Your task to perform on an android device: Is it going to rain tomorrow? Image 0: 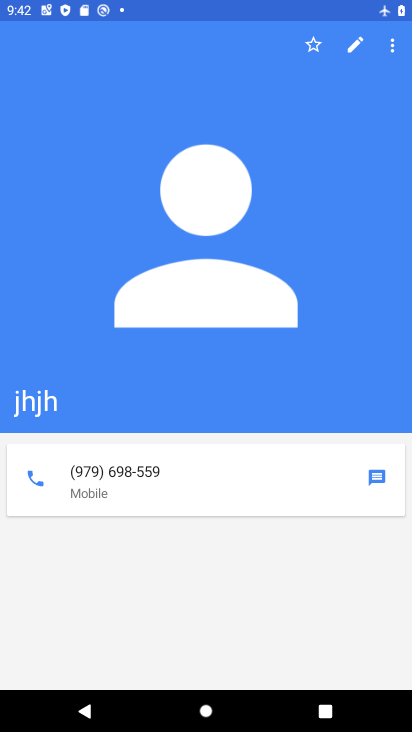
Step 0: press home button
Your task to perform on an android device: Is it going to rain tomorrow? Image 1: 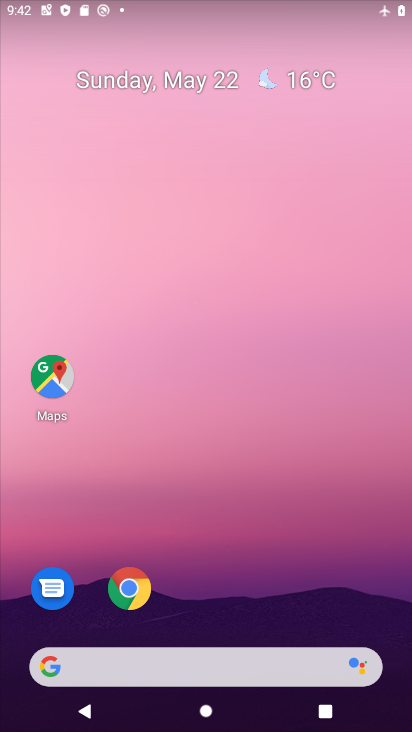
Step 1: drag from (227, 605) to (234, 122)
Your task to perform on an android device: Is it going to rain tomorrow? Image 2: 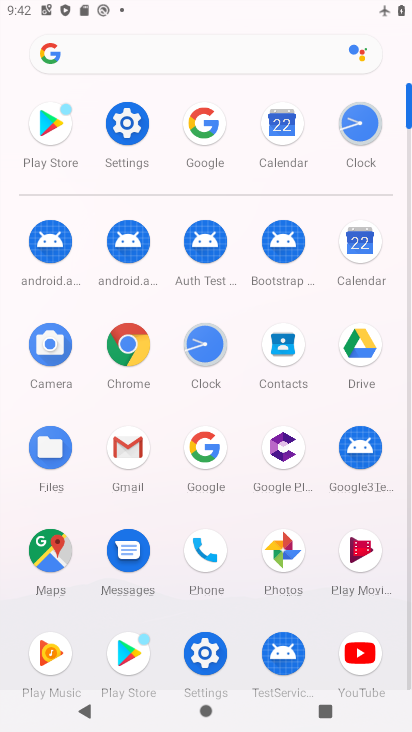
Step 2: click (199, 121)
Your task to perform on an android device: Is it going to rain tomorrow? Image 3: 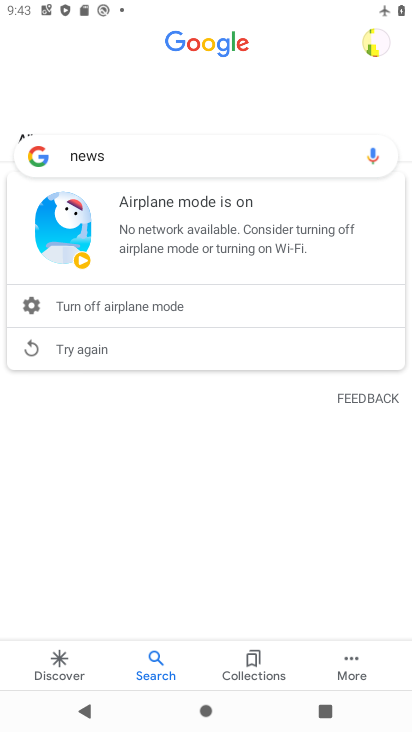
Step 3: click (203, 147)
Your task to perform on an android device: Is it going to rain tomorrow? Image 4: 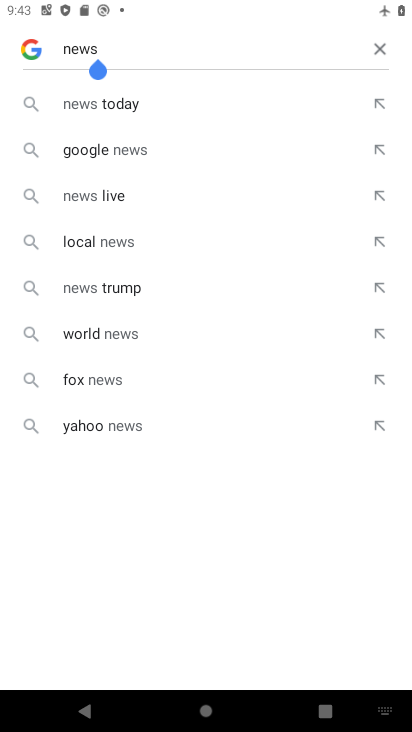
Step 4: click (383, 39)
Your task to perform on an android device: Is it going to rain tomorrow? Image 5: 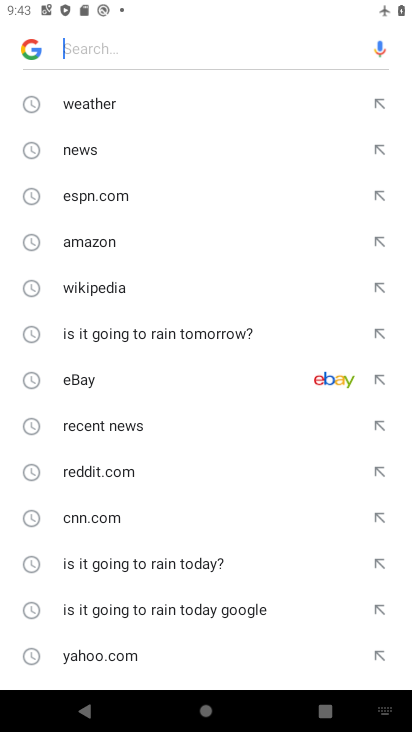
Step 5: click (146, 101)
Your task to perform on an android device: Is it going to rain tomorrow? Image 6: 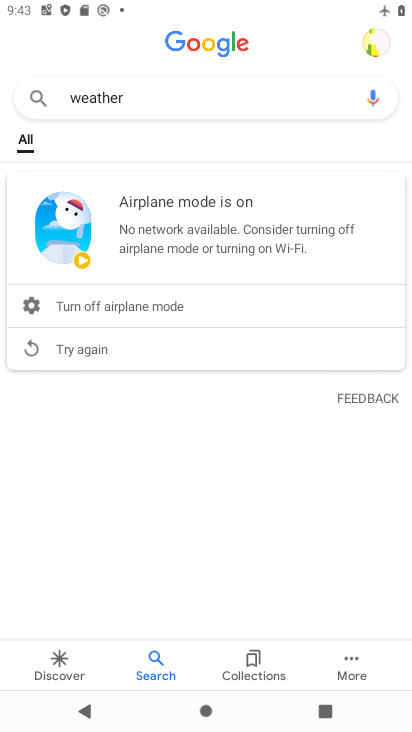
Step 6: task complete